Your task to perform on an android device: open a new tab in the chrome app Image 0: 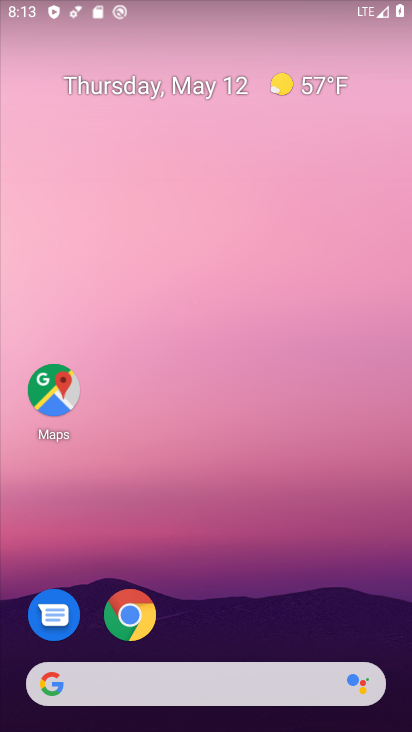
Step 0: drag from (334, 534) to (291, 42)
Your task to perform on an android device: open a new tab in the chrome app Image 1: 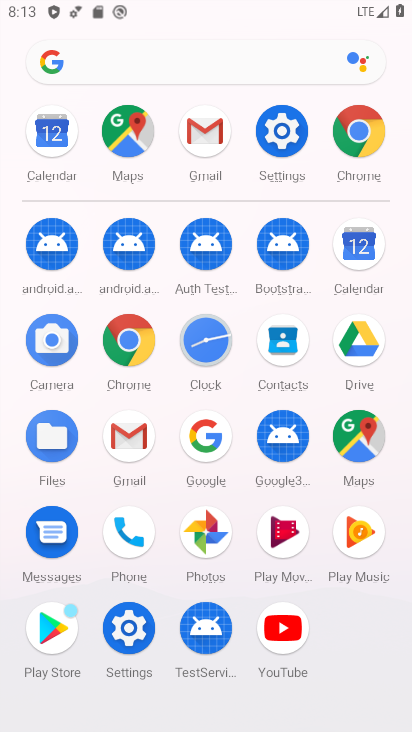
Step 1: drag from (17, 509) to (4, 242)
Your task to perform on an android device: open a new tab in the chrome app Image 2: 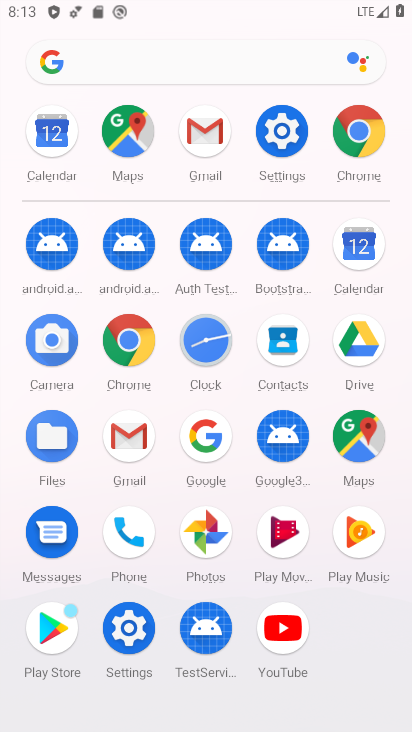
Step 2: click (124, 339)
Your task to perform on an android device: open a new tab in the chrome app Image 3: 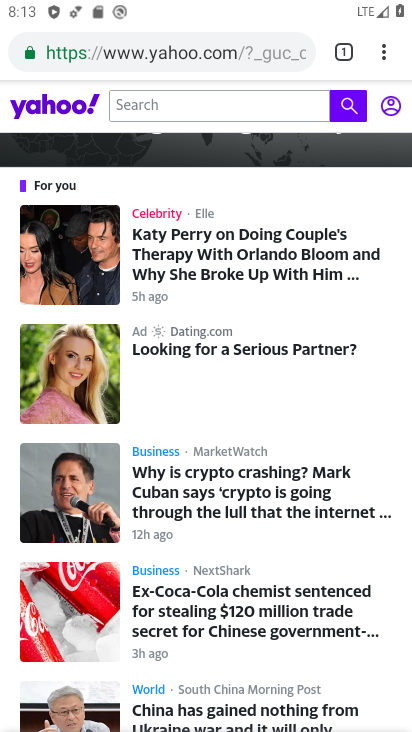
Step 3: task complete